Your task to perform on an android device: change the clock display to analog Image 0: 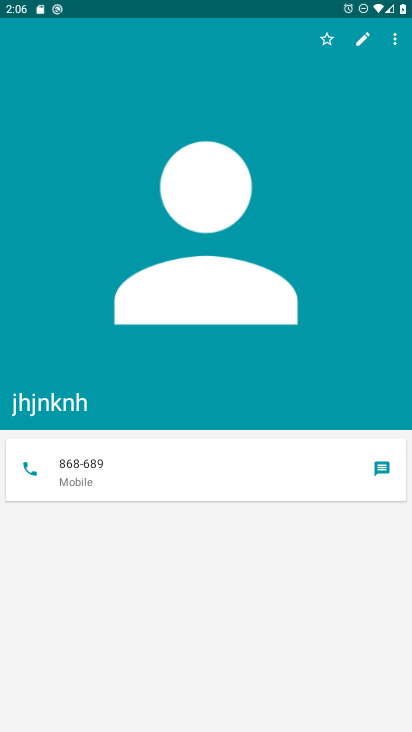
Step 0: press home button
Your task to perform on an android device: change the clock display to analog Image 1: 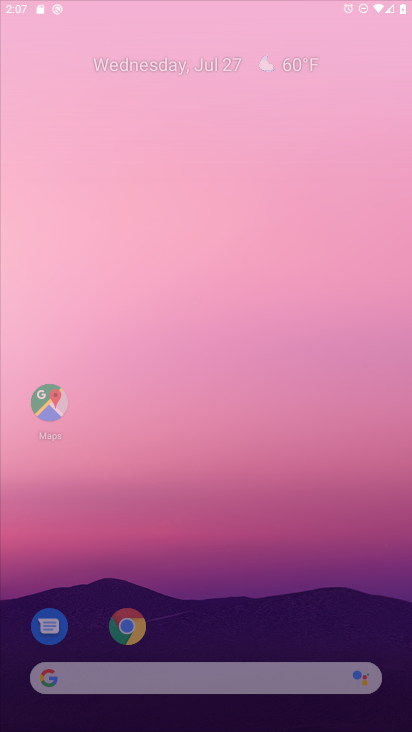
Step 1: drag from (126, 610) to (143, 167)
Your task to perform on an android device: change the clock display to analog Image 2: 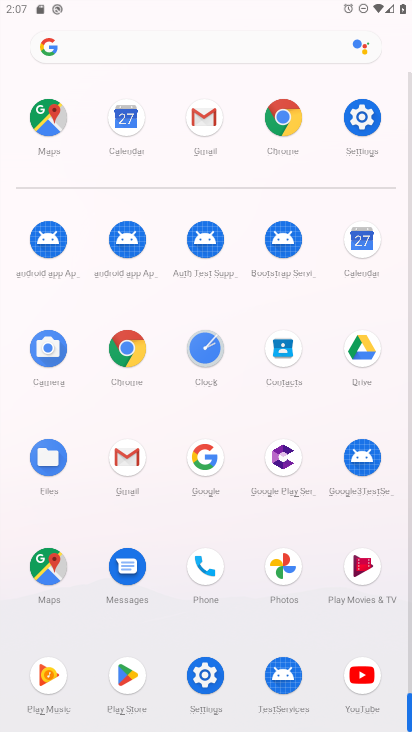
Step 2: click (195, 345)
Your task to perform on an android device: change the clock display to analog Image 3: 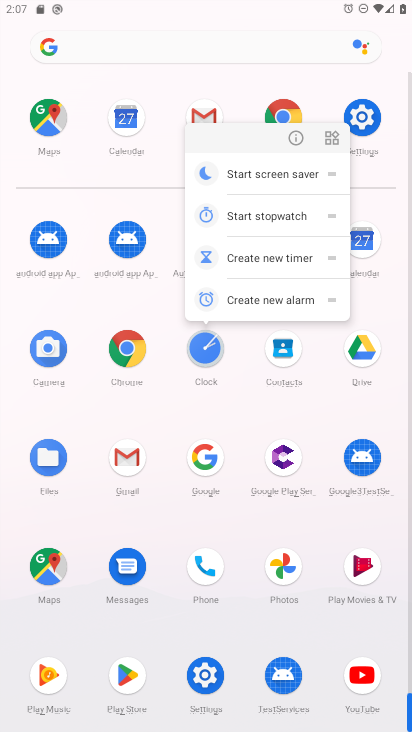
Step 3: click (291, 136)
Your task to perform on an android device: change the clock display to analog Image 4: 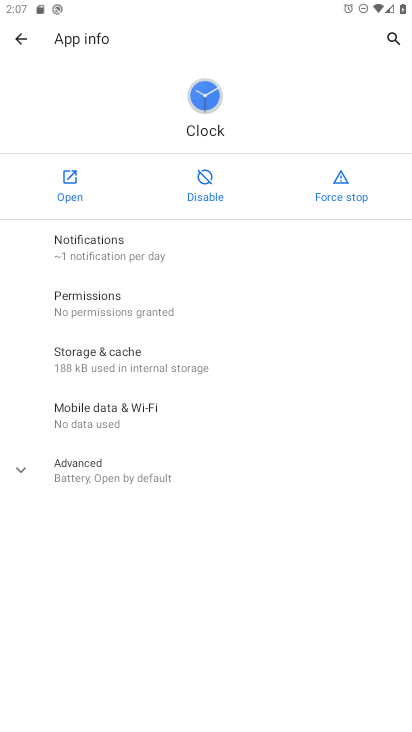
Step 4: click (67, 197)
Your task to perform on an android device: change the clock display to analog Image 5: 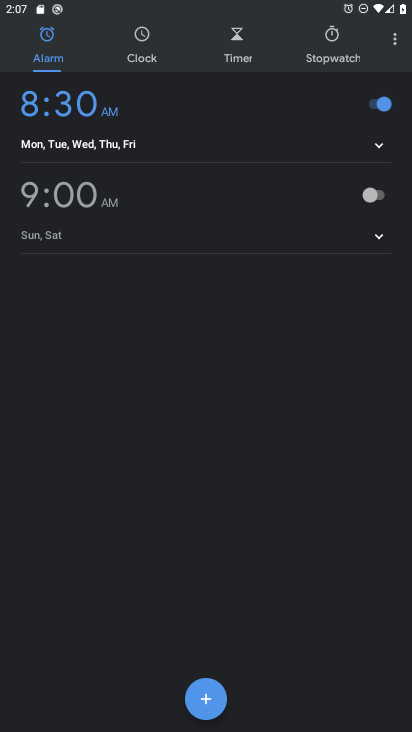
Step 5: drag from (391, 43) to (331, 79)
Your task to perform on an android device: change the clock display to analog Image 6: 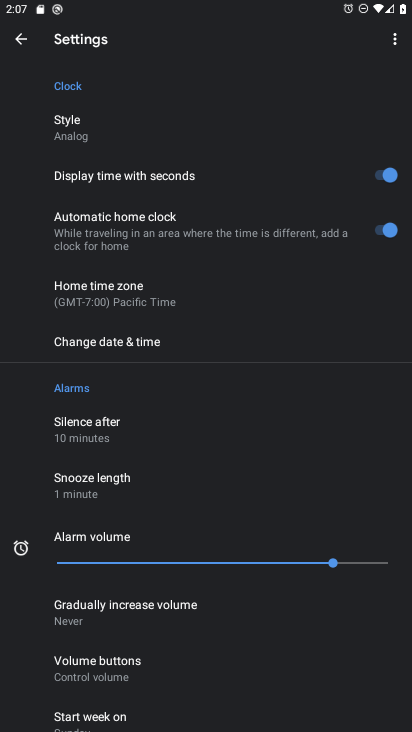
Step 6: click (78, 118)
Your task to perform on an android device: change the clock display to analog Image 7: 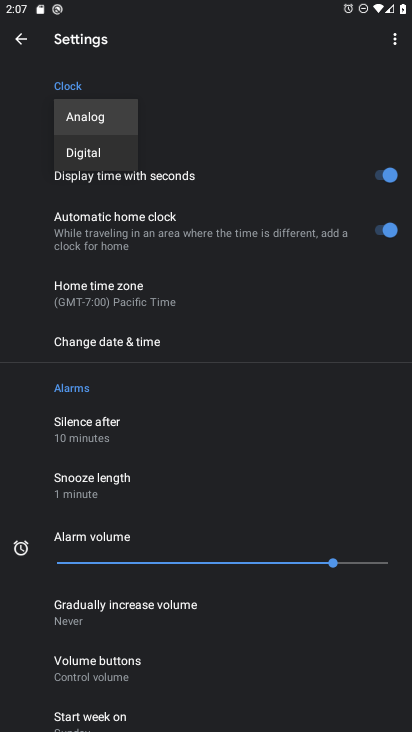
Step 7: task complete